Your task to perform on an android device: Go to display settings Image 0: 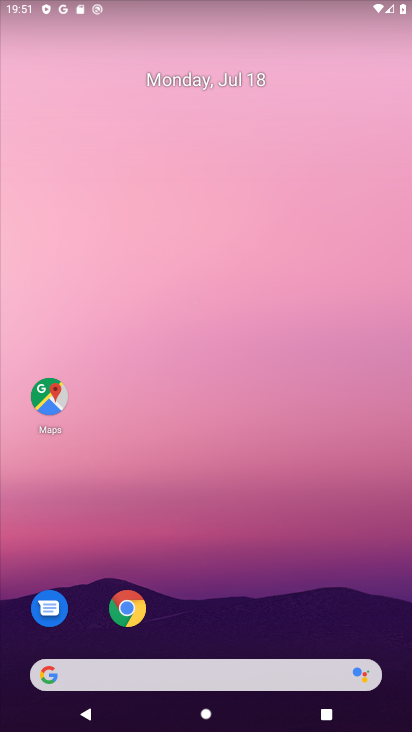
Step 0: drag from (218, 598) to (243, 36)
Your task to perform on an android device: Go to display settings Image 1: 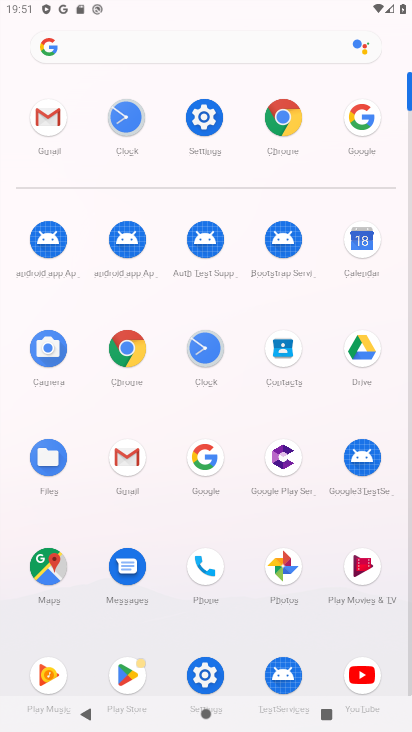
Step 1: click (203, 120)
Your task to perform on an android device: Go to display settings Image 2: 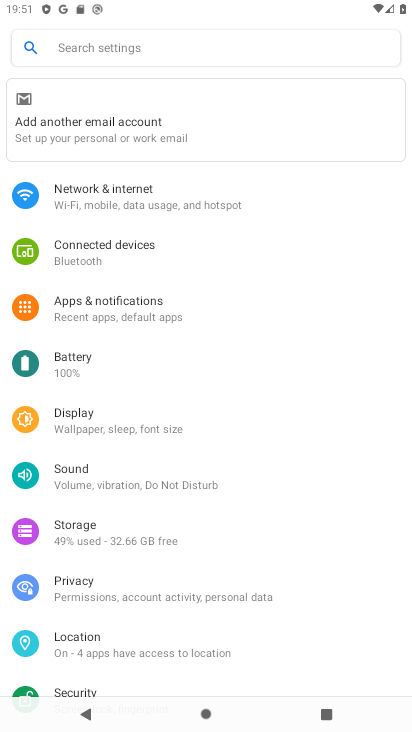
Step 2: click (95, 417)
Your task to perform on an android device: Go to display settings Image 3: 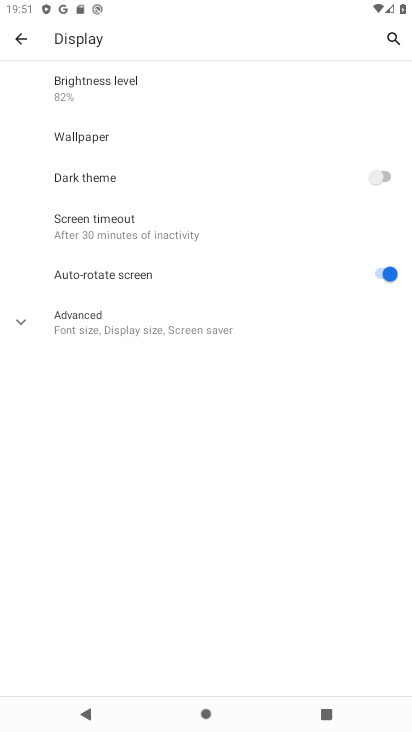
Step 3: task complete